Your task to perform on an android device: Go to battery settings Image 0: 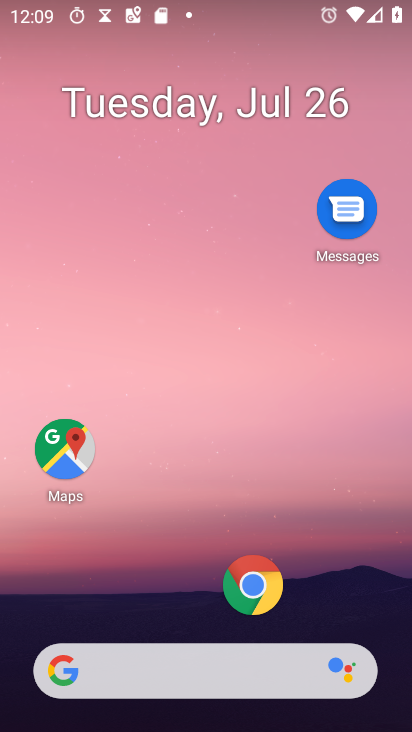
Step 0: press home button
Your task to perform on an android device: Go to battery settings Image 1: 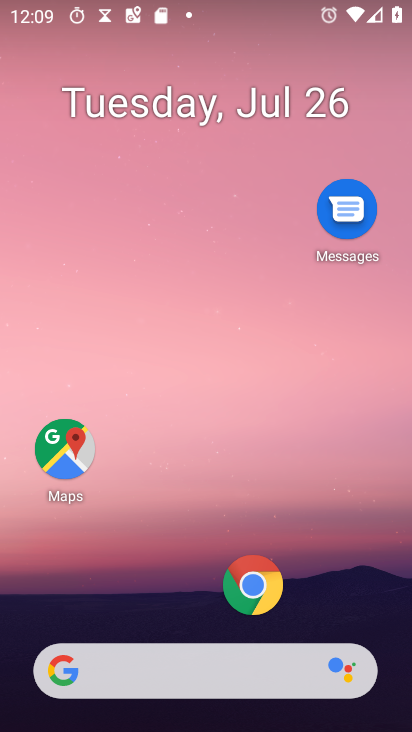
Step 1: drag from (124, 674) to (243, 102)
Your task to perform on an android device: Go to battery settings Image 2: 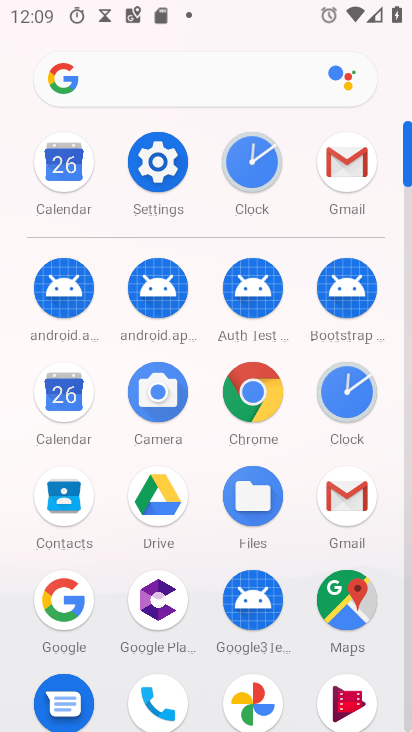
Step 2: click (154, 152)
Your task to perform on an android device: Go to battery settings Image 3: 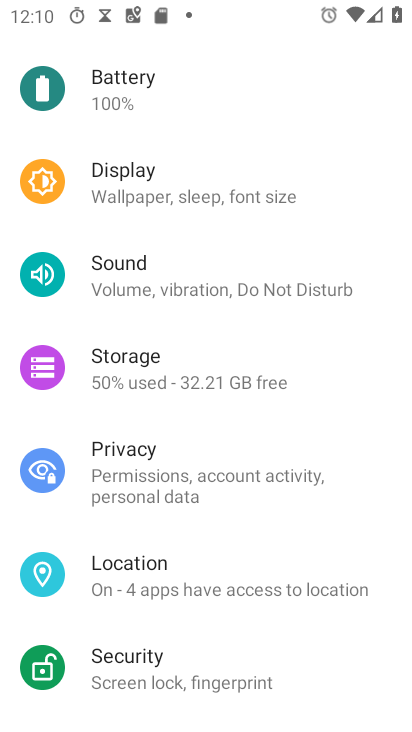
Step 3: click (121, 87)
Your task to perform on an android device: Go to battery settings Image 4: 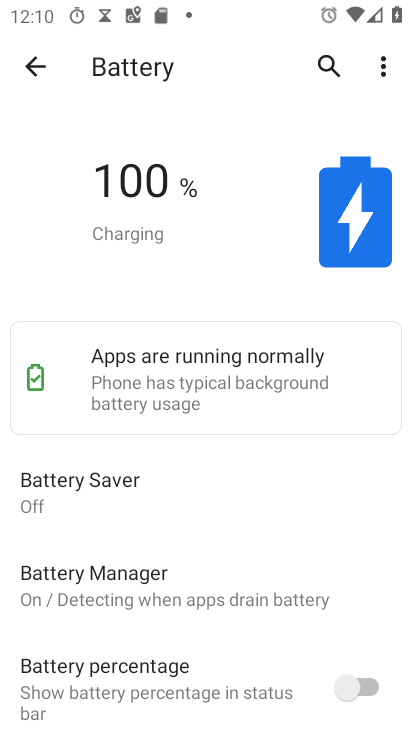
Step 4: task complete